Your task to perform on an android device: turn off location Image 0: 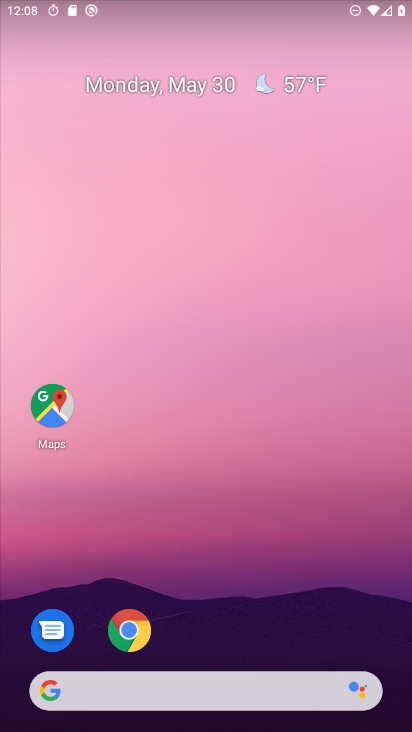
Step 0: drag from (294, 692) to (241, 253)
Your task to perform on an android device: turn off location Image 1: 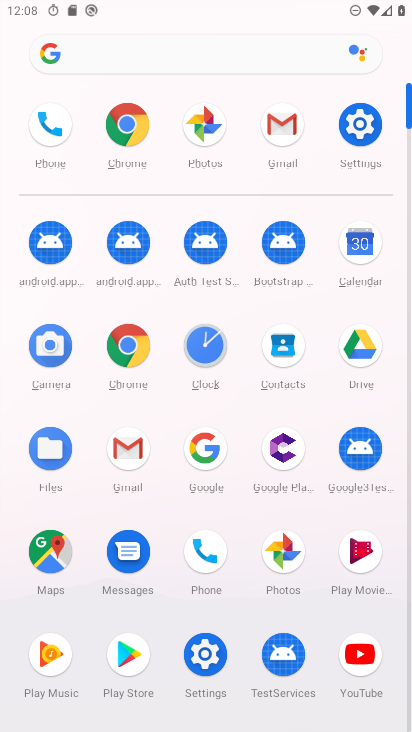
Step 1: click (363, 124)
Your task to perform on an android device: turn off location Image 2: 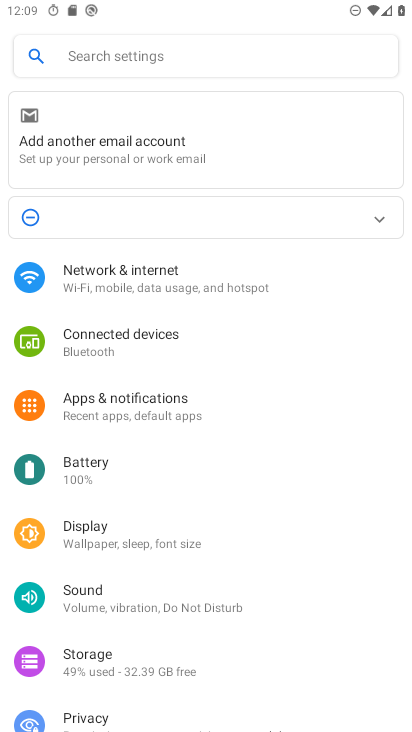
Step 2: click (178, 58)
Your task to perform on an android device: turn off location Image 3: 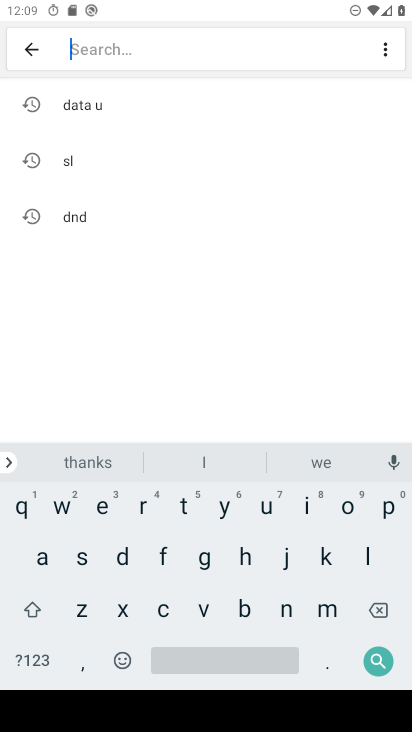
Step 3: click (363, 551)
Your task to perform on an android device: turn off location Image 4: 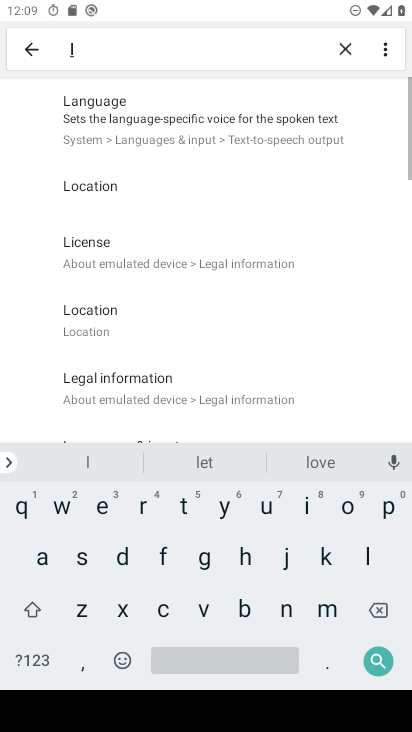
Step 4: click (344, 507)
Your task to perform on an android device: turn off location Image 5: 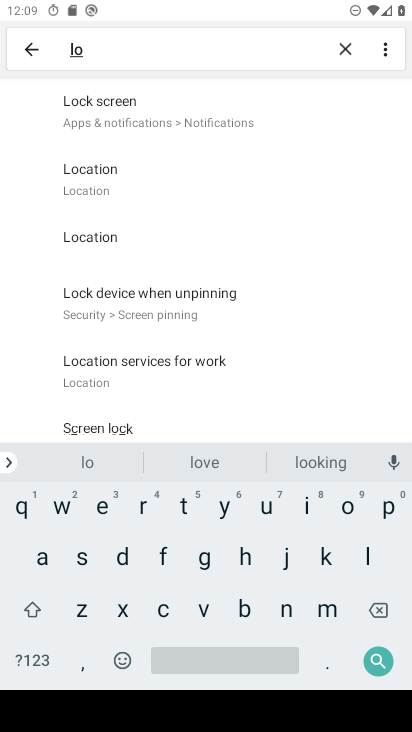
Step 5: click (122, 169)
Your task to perform on an android device: turn off location Image 6: 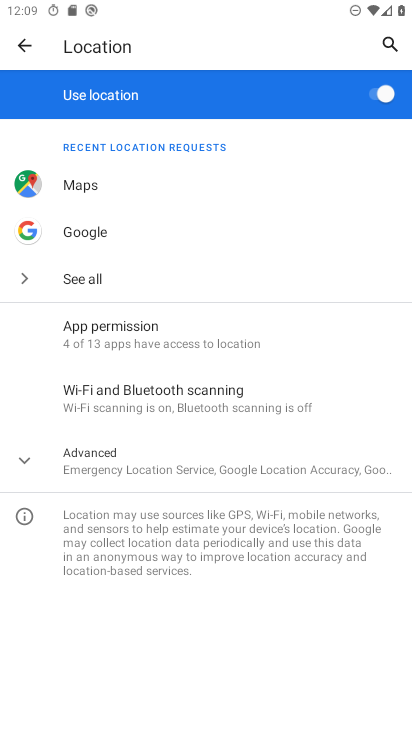
Step 6: click (384, 98)
Your task to perform on an android device: turn off location Image 7: 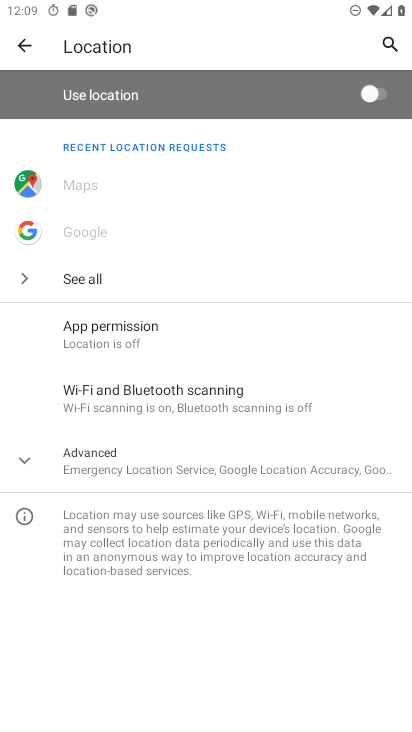
Step 7: task complete